Your task to perform on an android device: Open Wikipedia Image 0: 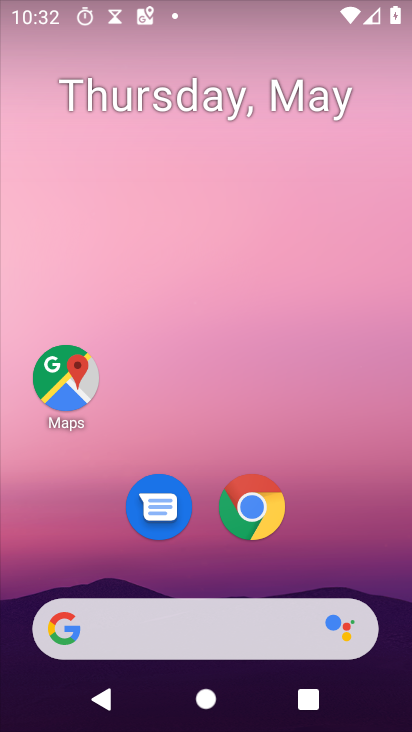
Step 0: click (248, 516)
Your task to perform on an android device: Open Wikipedia Image 1: 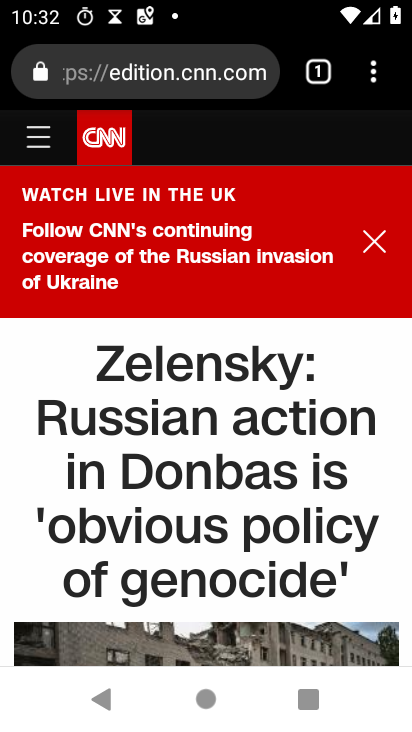
Step 1: click (324, 65)
Your task to perform on an android device: Open Wikipedia Image 2: 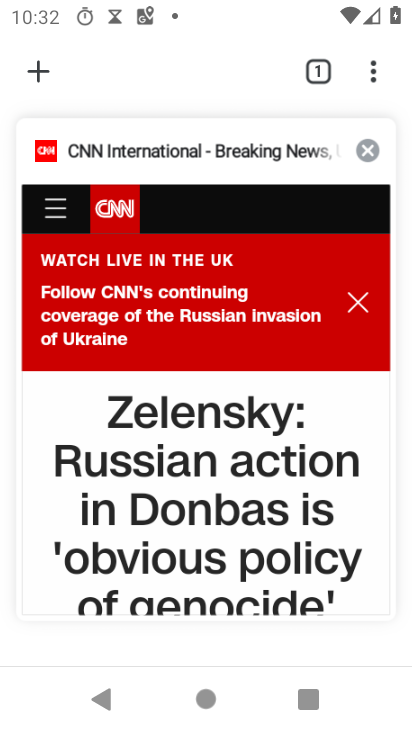
Step 2: click (367, 151)
Your task to perform on an android device: Open Wikipedia Image 3: 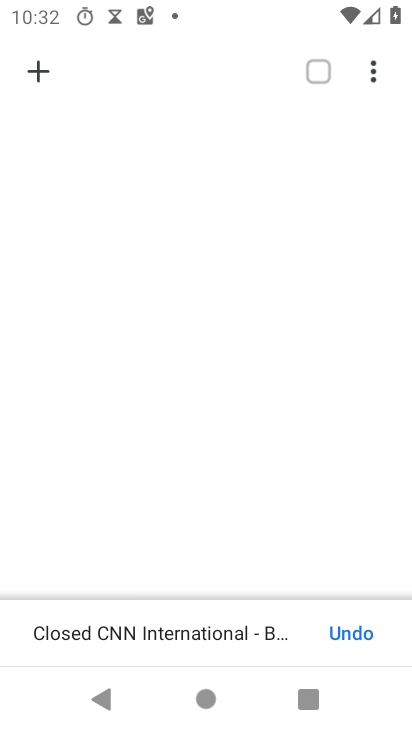
Step 3: click (41, 66)
Your task to perform on an android device: Open Wikipedia Image 4: 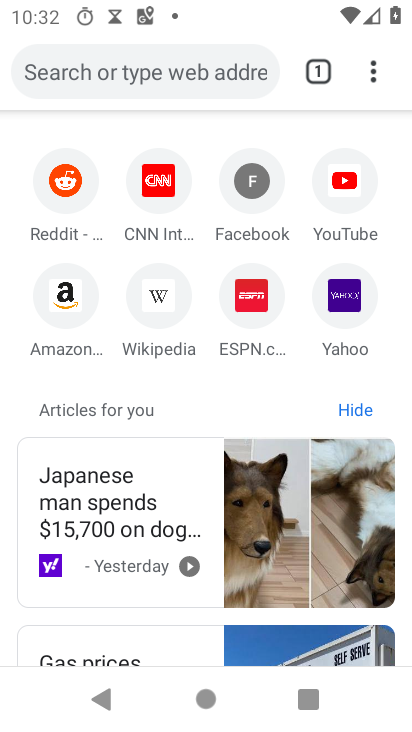
Step 4: click (162, 315)
Your task to perform on an android device: Open Wikipedia Image 5: 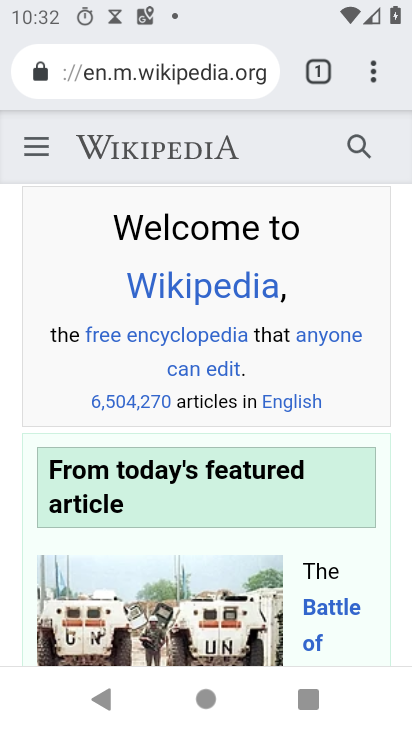
Step 5: task complete